Your task to perform on an android device: toggle notifications settings in the gmail app Image 0: 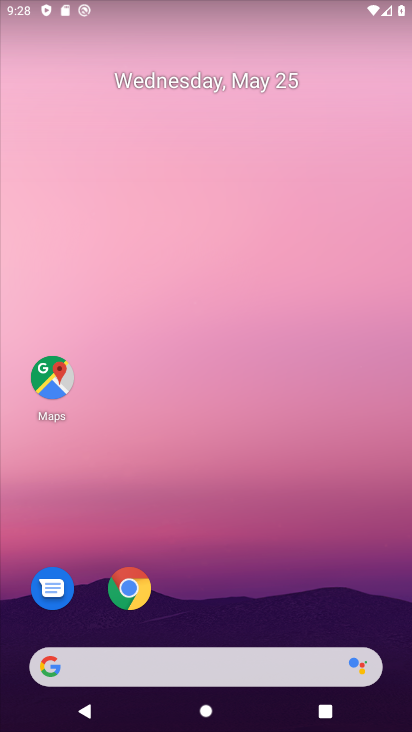
Step 0: drag from (228, 597) to (322, 40)
Your task to perform on an android device: toggle notifications settings in the gmail app Image 1: 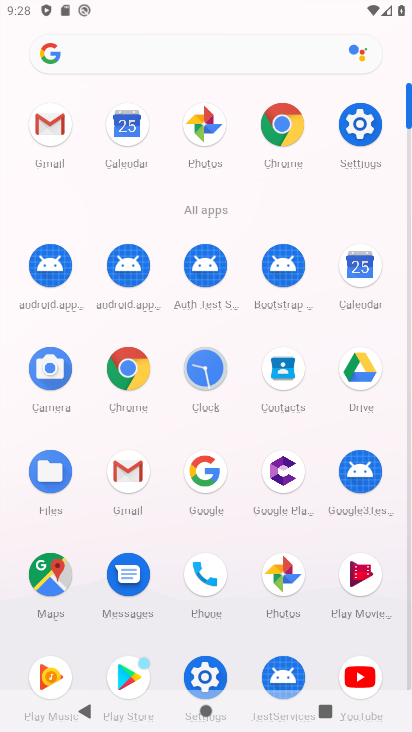
Step 1: click (129, 478)
Your task to perform on an android device: toggle notifications settings in the gmail app Image 2: 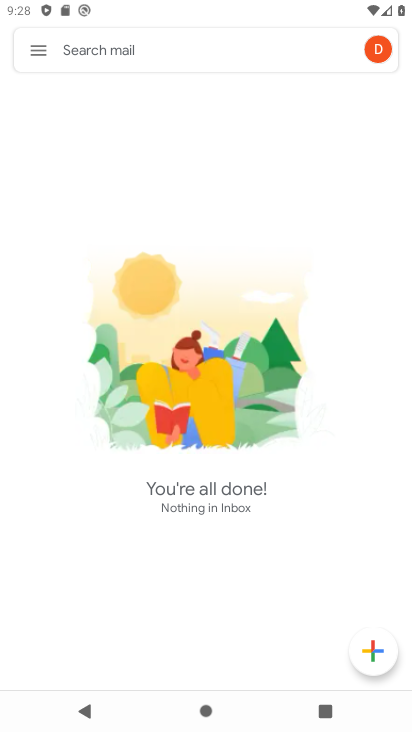
Step 2: click (46, 49)
Your task to perform on an android device: toggle notifications settings in the gmail app Image 3: 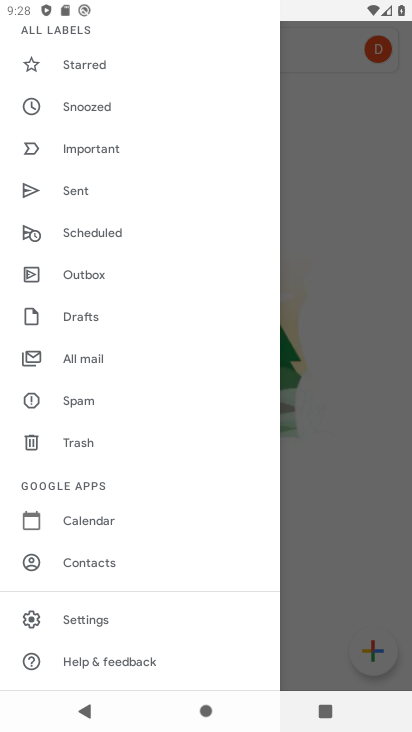
Step 3: click (115, 616)
Your task to perform on an android device: toggle notifications settings in the gmail app Image 4: 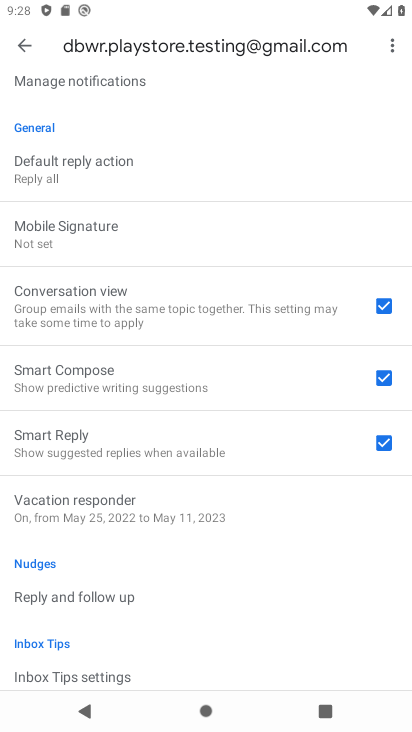
Step 4: drag from (114, 174) to (190, 513)
Your task to perform on an android device: toggle notifications settings in the gmail app Image 5: 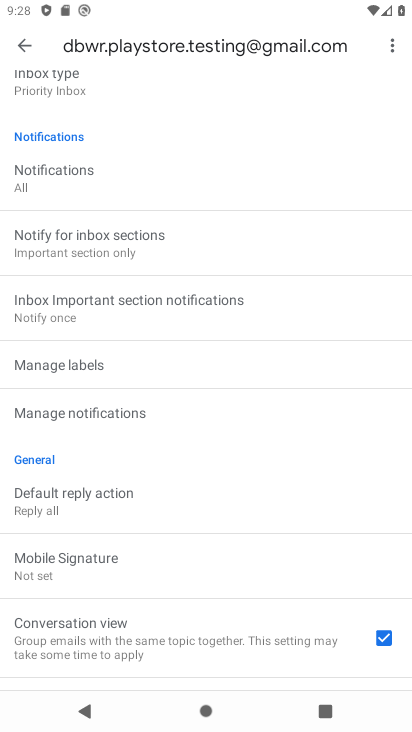
Step 5: click (87, 410)
Your task to perform on an android device: toggle notifications settings in the gmail app Image 6: 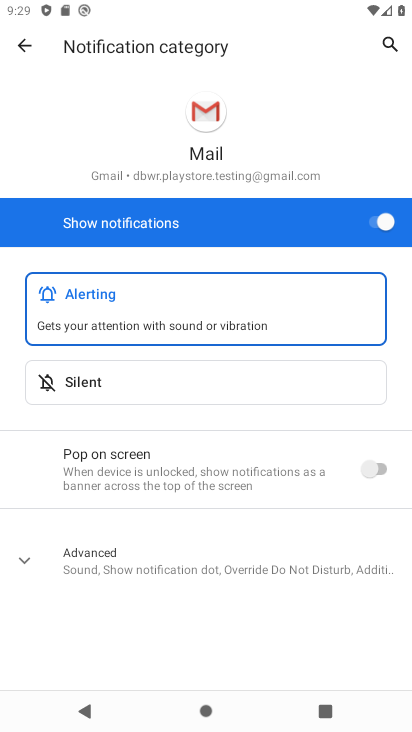
Step 6: click (373, 218)
Your task to perform on an android device: toggle notifications settings in the gmail app Image 7: 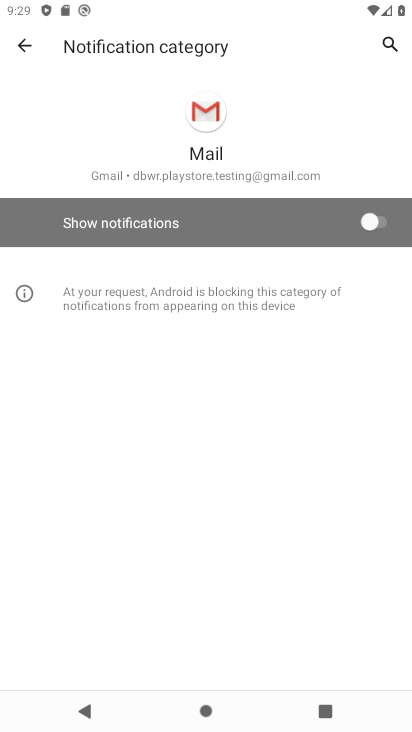
Step 7: task complete